Your task to perform on an android device: Open Google Image 0: 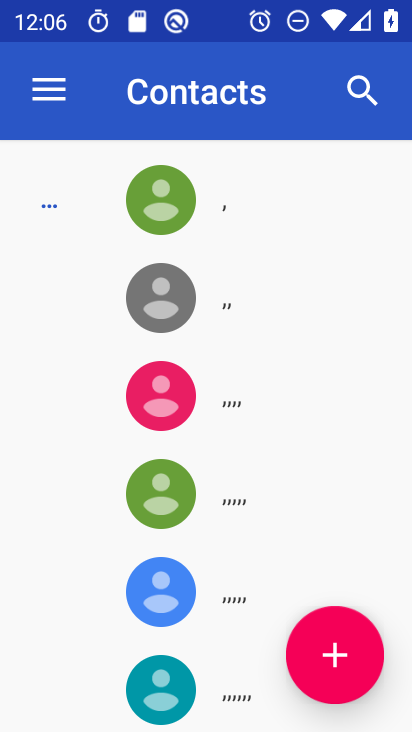
Step 0: press home button
Your task to perform on an android device: Open Google Image 1: 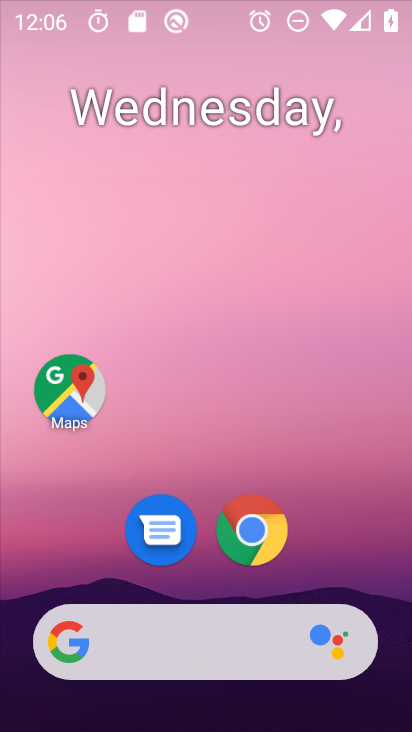
Step 1: drag from (230, 667) to (206, 38)
Your task to perform on an android device: Open Google Image 2: 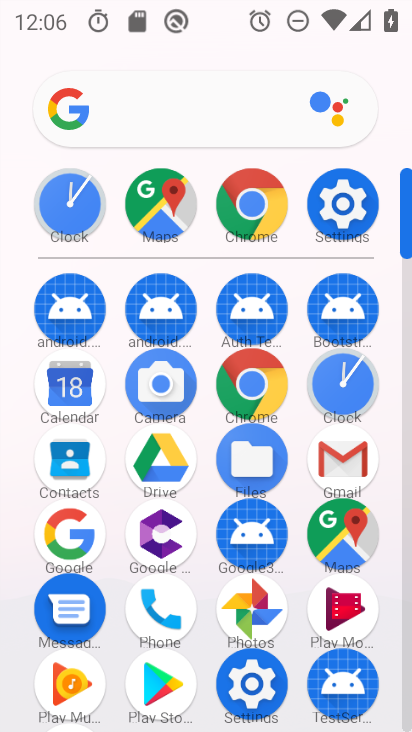
Step 2: click (248, 394)
Your task to perform on an android device: Open Google Image 3: 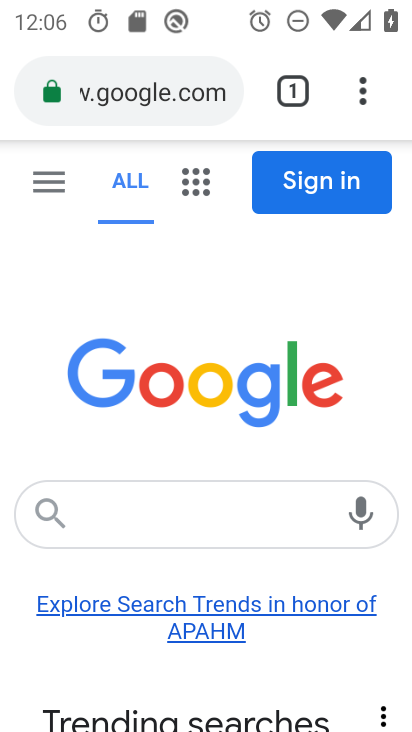
Step 3: click (241, 382)
Your task to perform on an android device: Open Google Image 4: 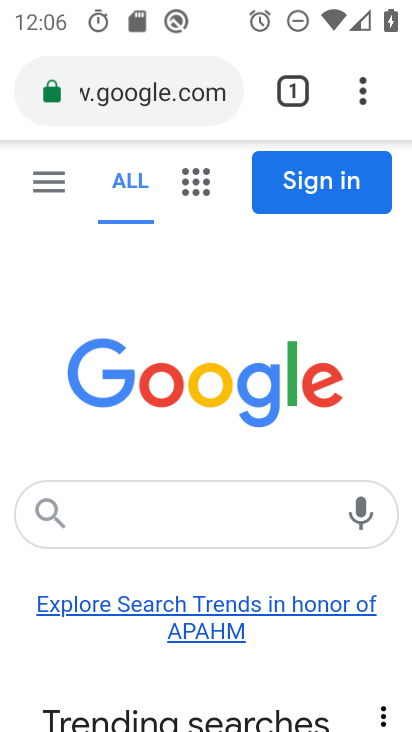
Step 4: task complete